Your task to perform on an android device: toggle wifi Image 0: 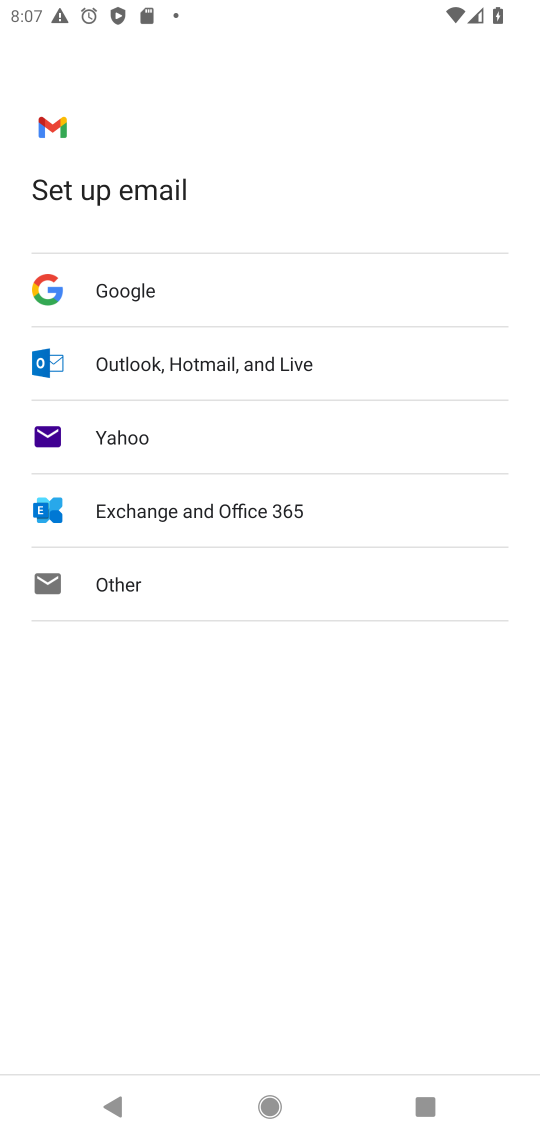
Step 0: press home button
Your task to perform on an android device: toggle wifi Image 1: 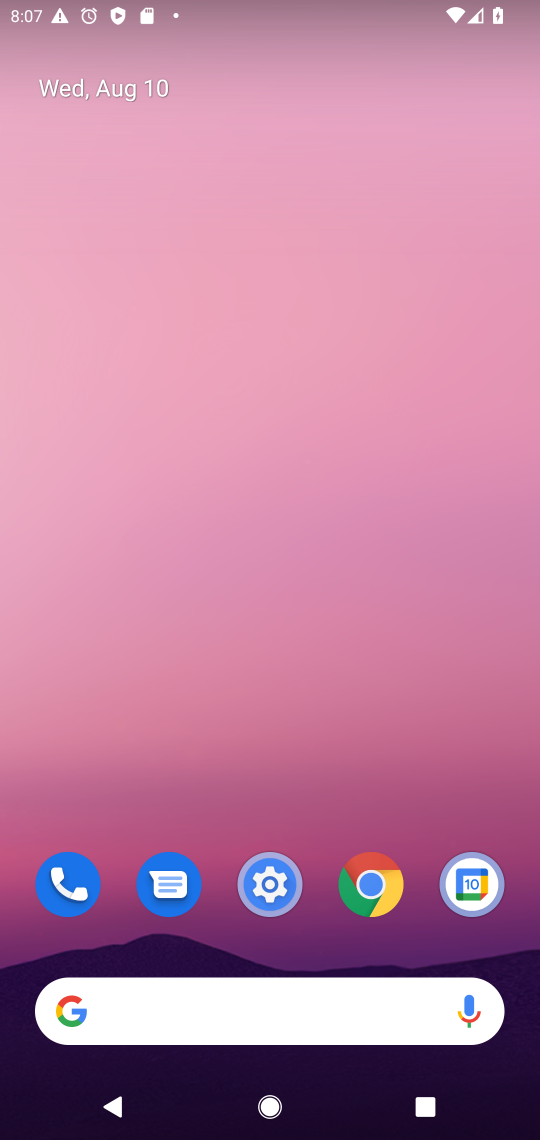
Step 1: click (264, 897)
Your task to perform on an android device: toggle wifi Image 2: 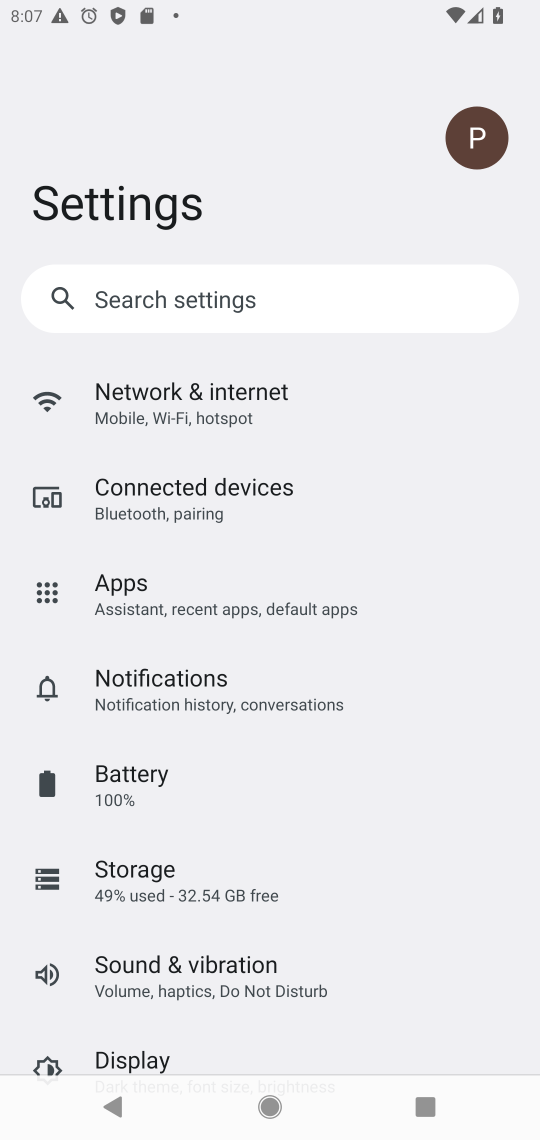
Step 2: click (229, 404)
Your task to perform on an android device: toggle wifi Image 3: 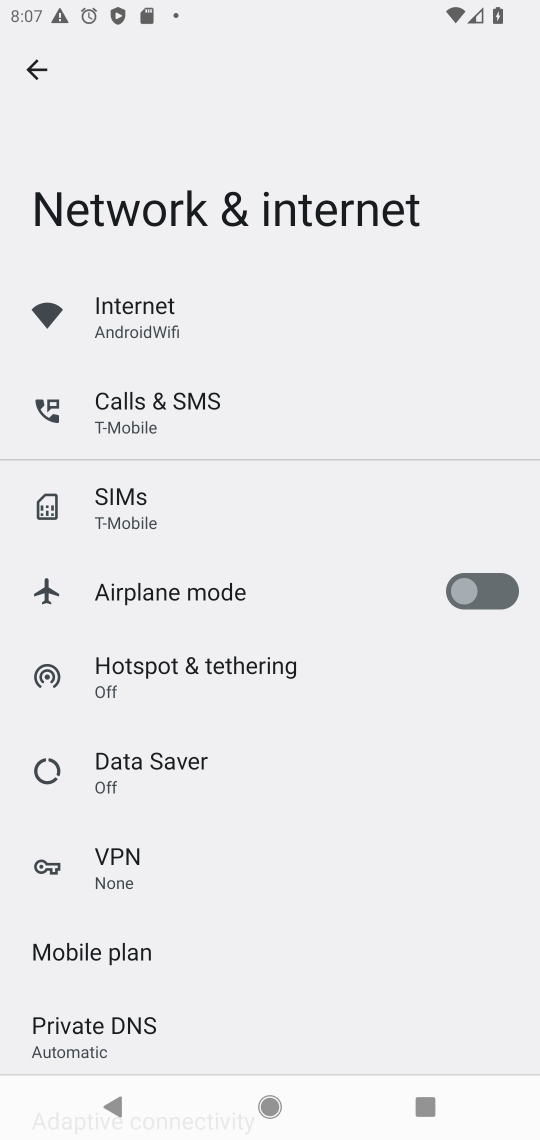
Step 3: click (88, 324)
Your task to perform on an android device: toggle wifi Image 4: 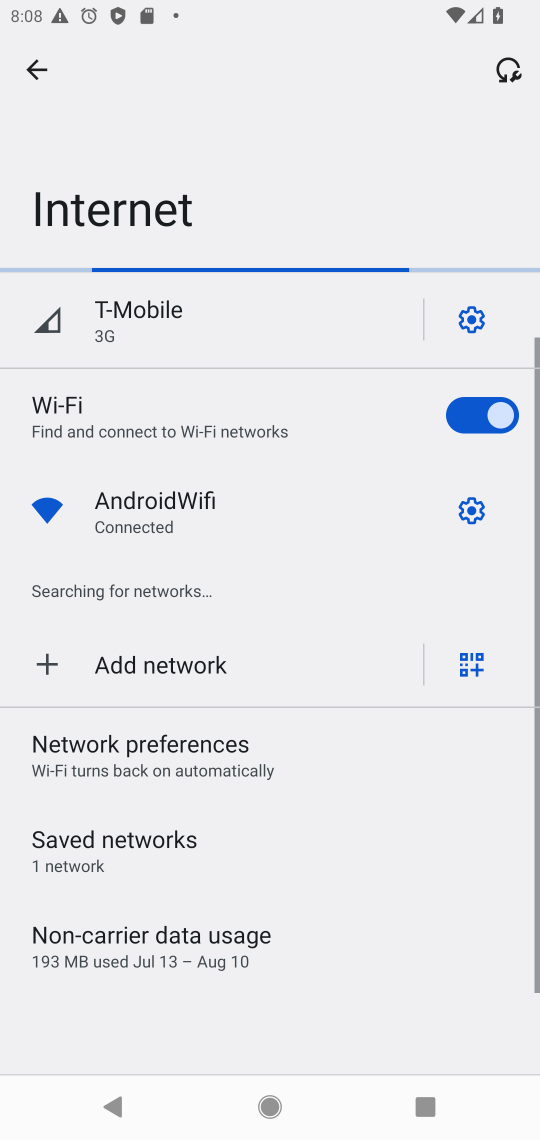
Step 4: task complete